Your task to perform on an android device: Open calendar and show me the third week of next month Image 0: 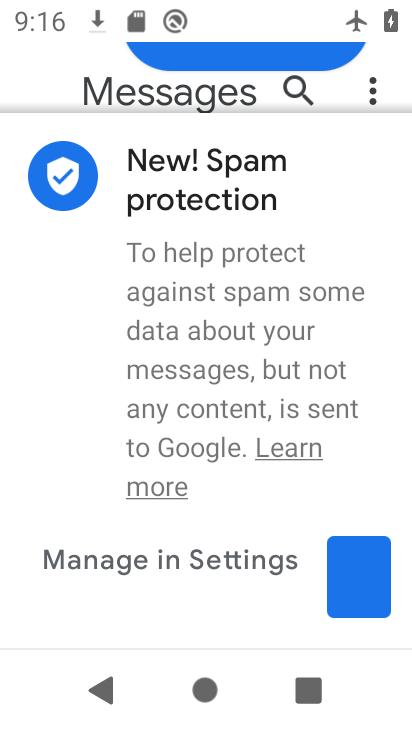
Step 0: press back button
Your task to perform on an android device: Open calendar and show me the third week of next month Image 1: 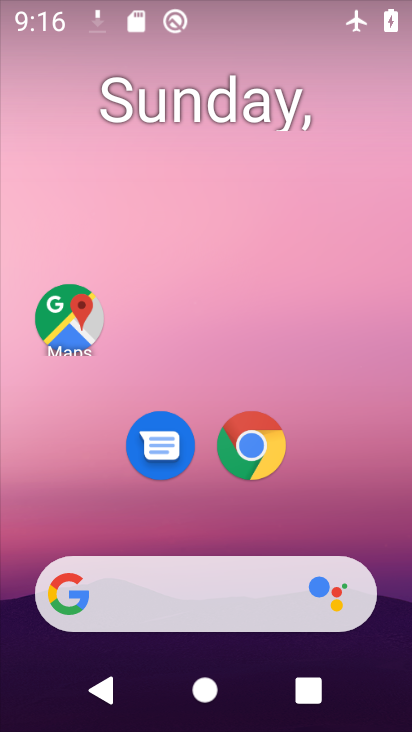
Step 1: drag from (345, 533) to (326, 45)
Your task to perform on an android device: Open calendar and show me the third week of next month Image 2: 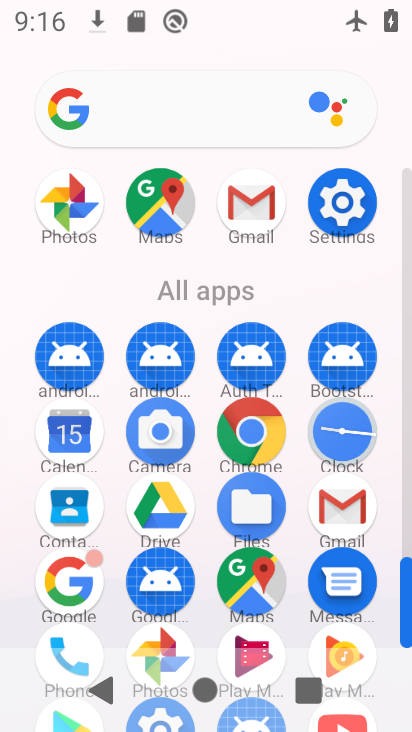
Step 2: click (66, 427)
Your task to perform on an android device: Open calendar and show me the third week of next month Image 3: 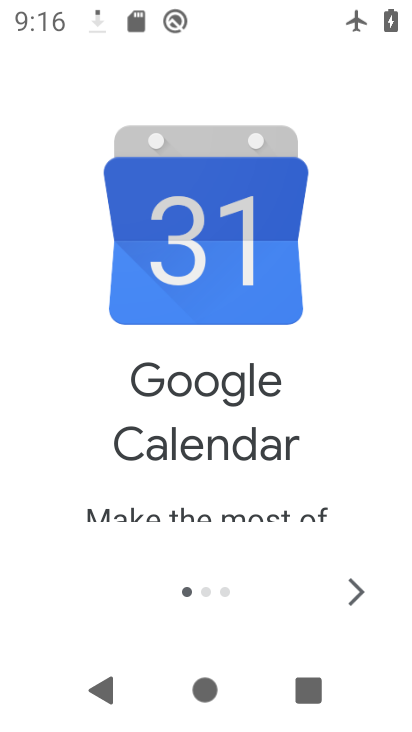
Step 3: click (358, 577)
Your task to perform on an android device: Open calendar and show me the third week of next month Image 4: 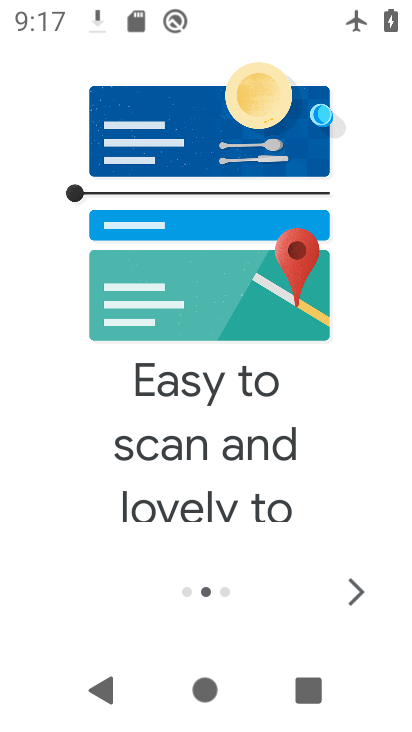
Step 4: click (352, 579)
Your task to perform on an android device: Open calendar and show me the third week of next month Image 5: 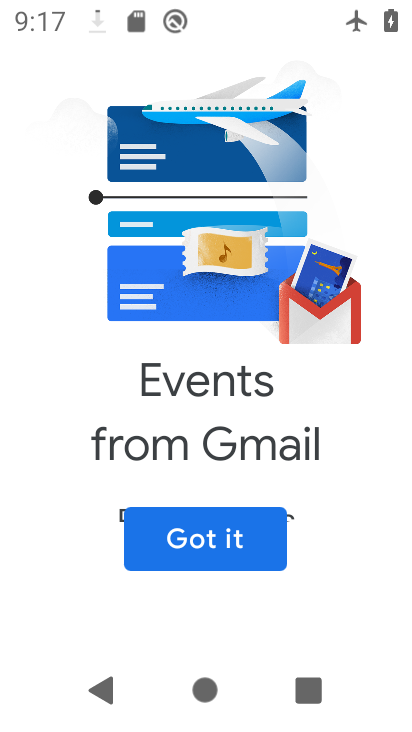
Step 5: click (237, 546)
Your task to perform on an android device: Open calendar and show me the third week of next month Image 6: 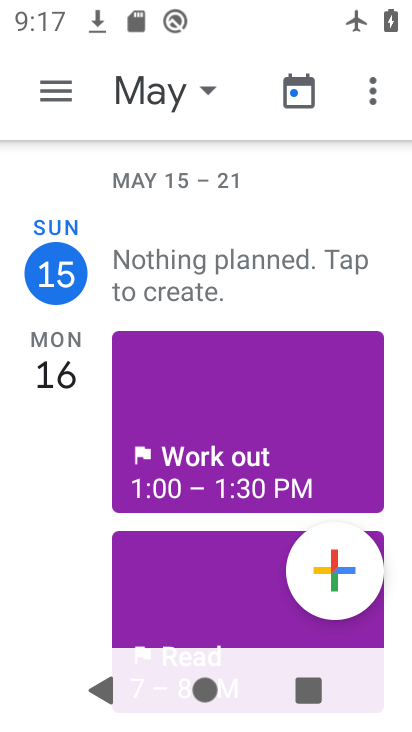
Step 6: click (173, 83)
Your task to perform on an android device: Open calendar and show me the third week of next month Image 7: 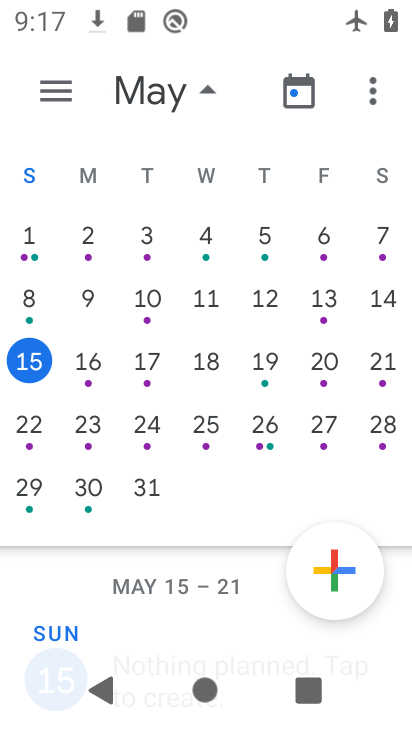
Step 7: drag from (379, 296) to (5, 301)
Your task to perform on an android device: Open calendar and show me the third week of next month Image 8: 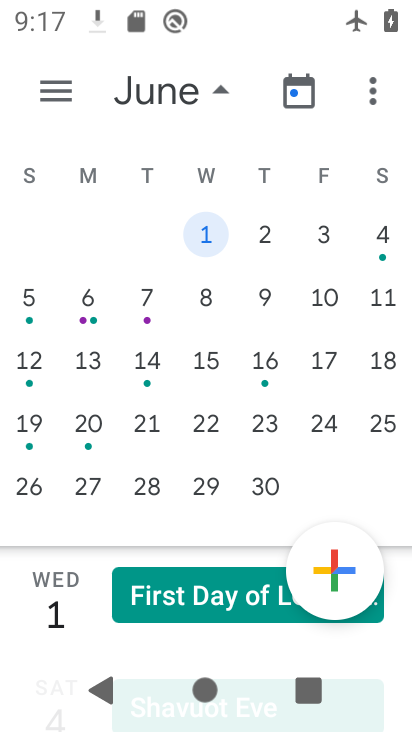
Step 8: click (14, 371)
Your task to perform on an android device: Open calendar and show me the third week of next month Image 9: 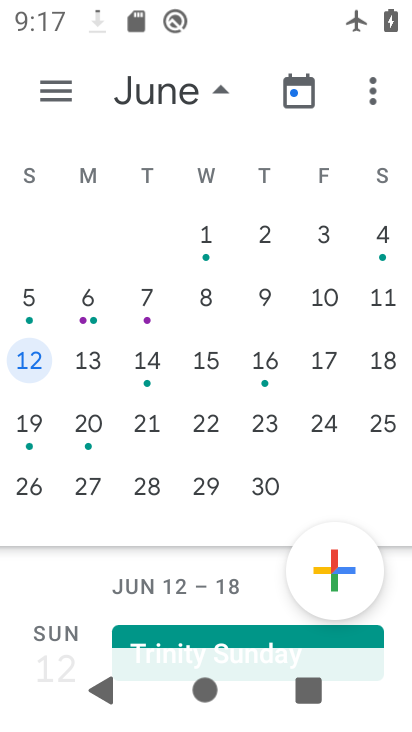
Step 9: click (56, 103)
Your task to perform on an android device: Open calendar and show me the third week of next month Image 10: 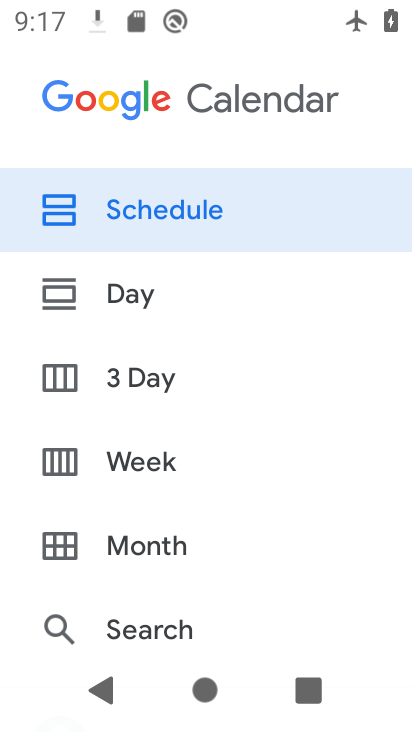
Step 10: click (176, 458)
Your task to perform on an android device: Open calendar and show me the third week of next month Image 11: 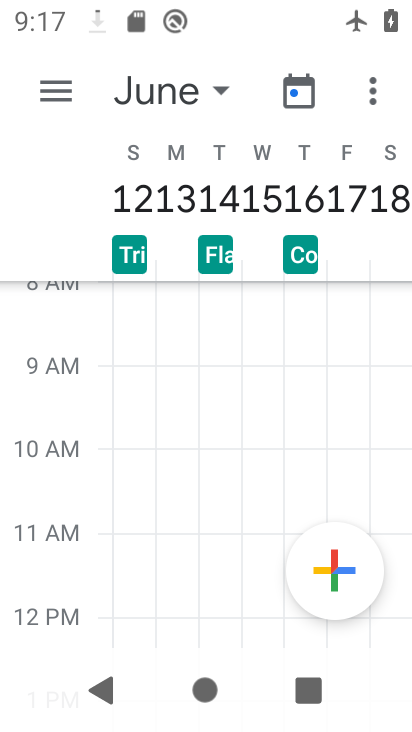
Step 11: task complete